Your task to perform on an android device: turn off sleep mode Image 0: 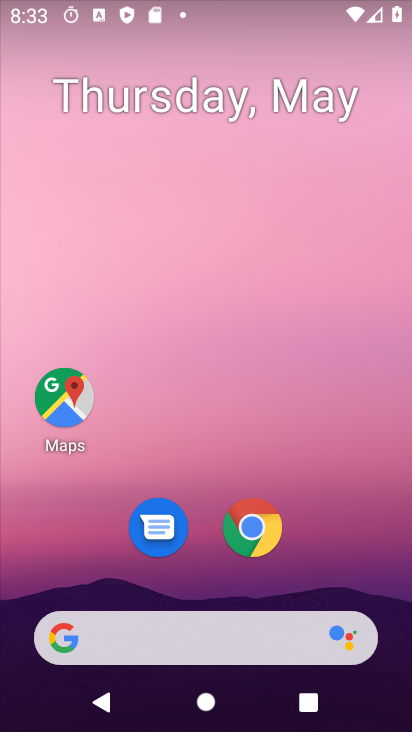
Step 0: drag from (33, 589) to (235, 292)
Your task to perform on an android device: turn off sleep mode Image 1: 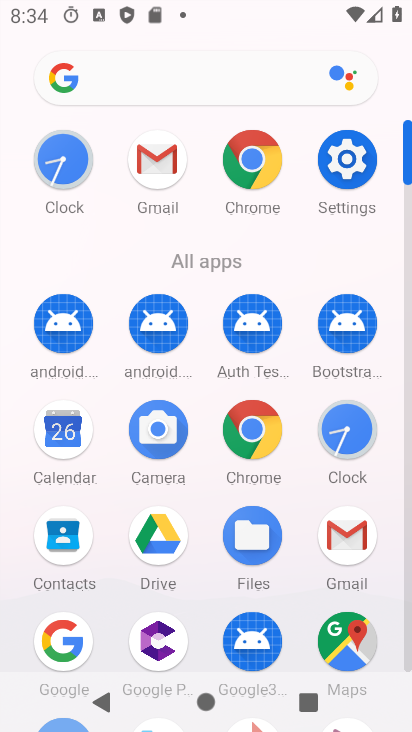
Step 1: click (342, 169)
Your task to perform on an android device: turn off sleep mode Image 2: 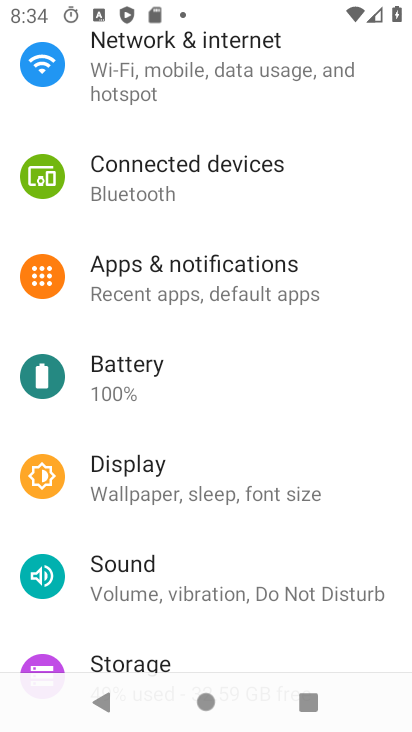
Step 2: click (161, 502)
Your task to perform on an android device: turn off sleep mode Image 3: 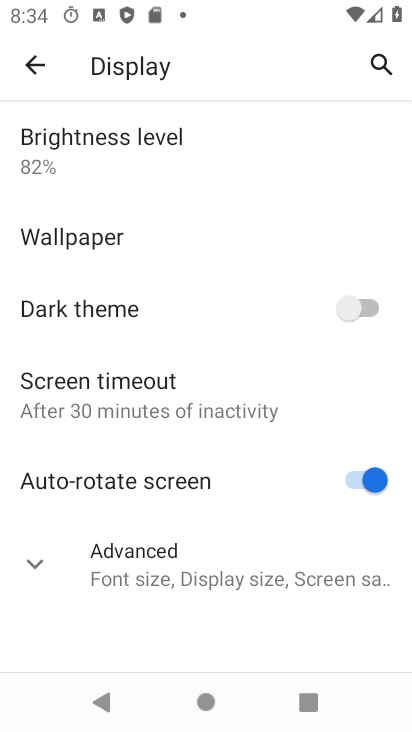
Step 3: task complete